Your task to perform on an android device: set an alarm Image 0: 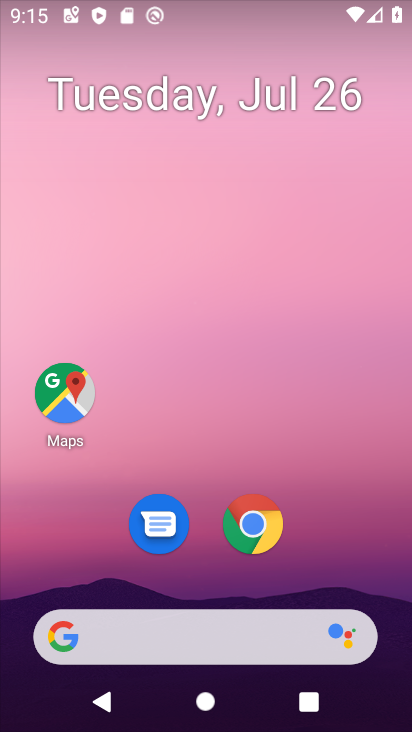
Step 0: press home button
Your task to perform on an android device: set an alarm Image 1: 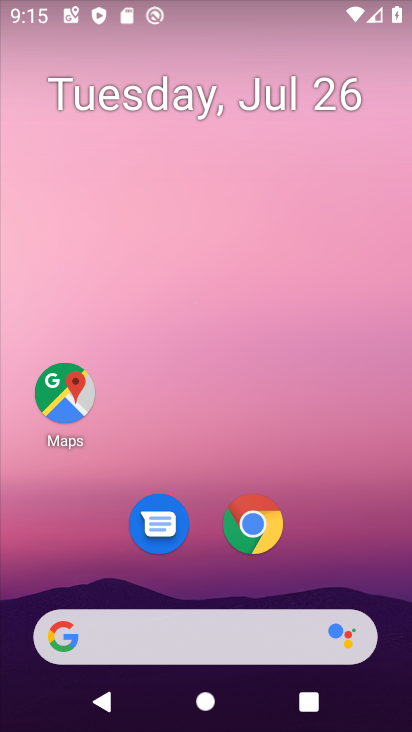
Step 1: drag from (221, 624) to (351, 75)
Your task to perform on an android device: set an alarm Image 2: 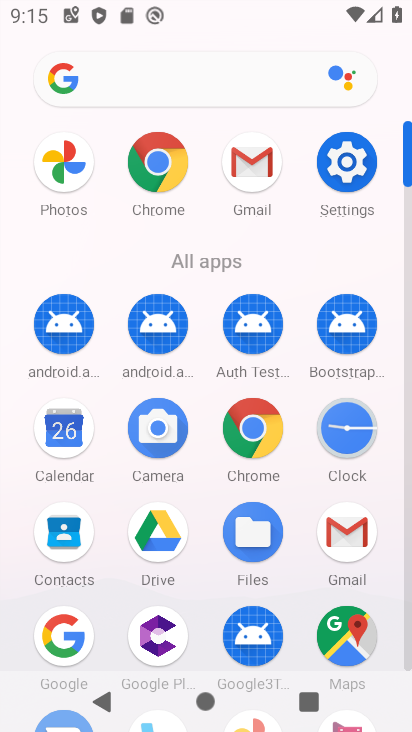
Step 2: click (353, 421)
Your task to perform on an android device: set an alarm Image 3: 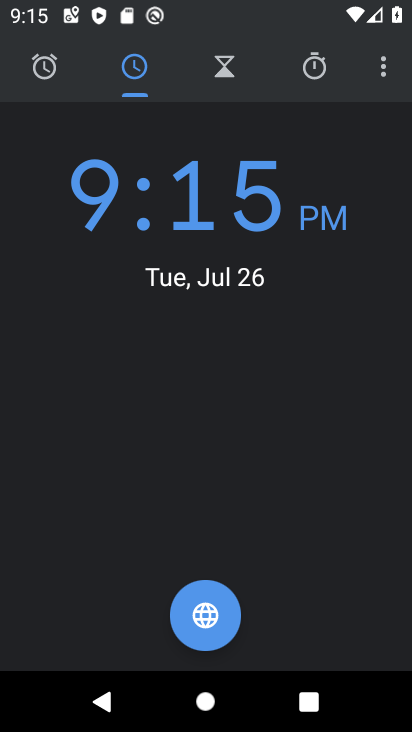
Step 3: click (44, 68)
Your task to perform on an android device: set an alarm Image 4: 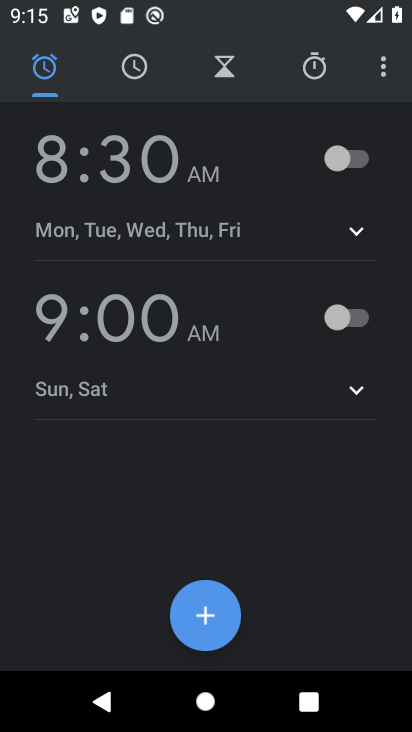
Step 4: click (350, 155)
Your task to perform on an android device: set an alarm Image 5: 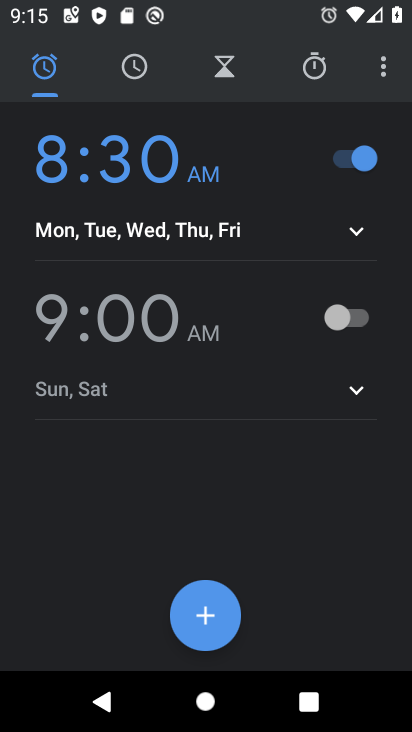
Step 5: task complete